Your task to perform on an android device: turn off javascript in the chrome app Image 0: 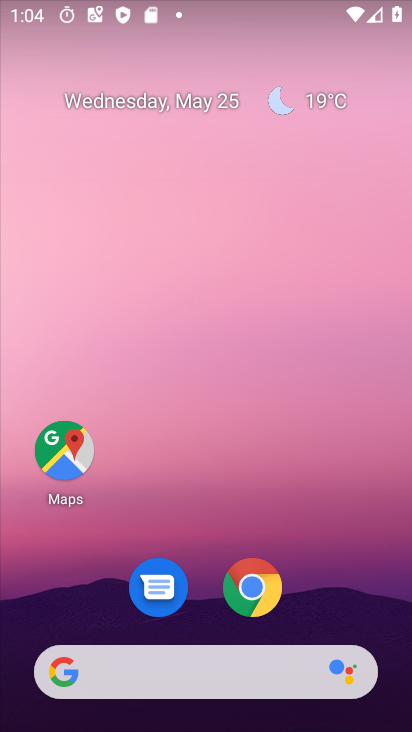
Step 0: click (255, 584)
Your task to perform on an android device: turn off javascript in the chrome app Image 1: 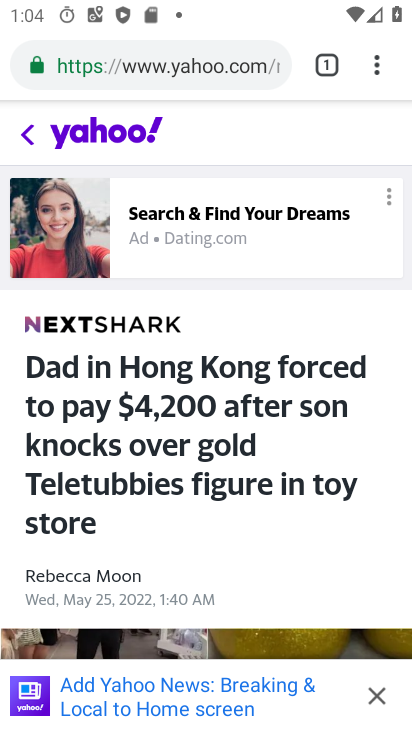
Step 1: click (378, 72)
Your task to perform on an android device: turn off javascript in the chrome app Image 2: 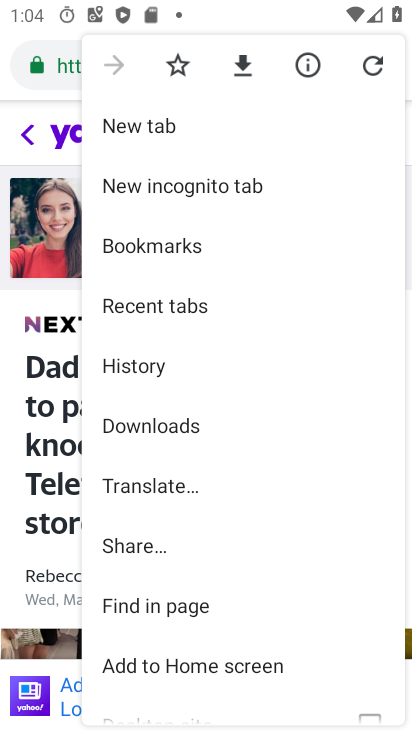
Step 2: drag from (160, 639) to (158, 276)
Your task to perform on an android device: turn off javascript in the chrome app Image 3: 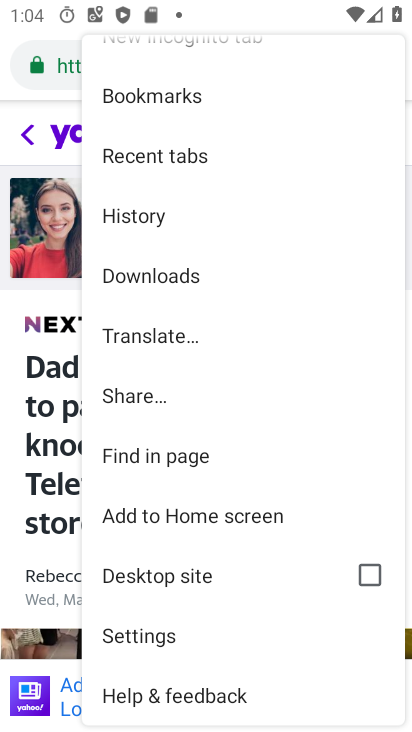
Step 3: click (156, 633)
Your task to perform on an android device: turn off javascript in the chrome app Image 4: 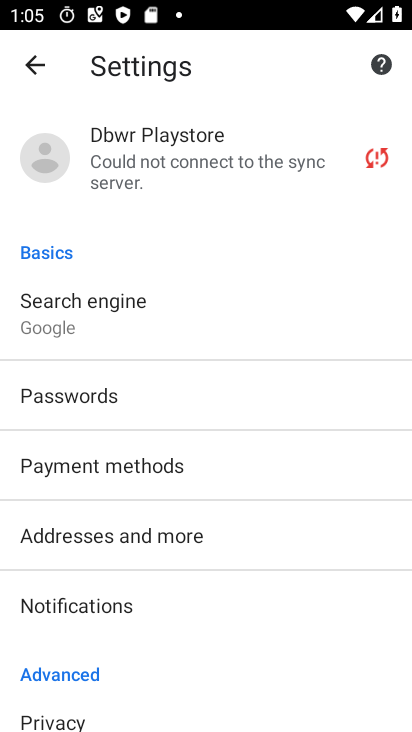
Step 4: drag from (139, 669) to (139, 357)
Your task to perform on an android device: turn off javascript in the chrome app Image 5: 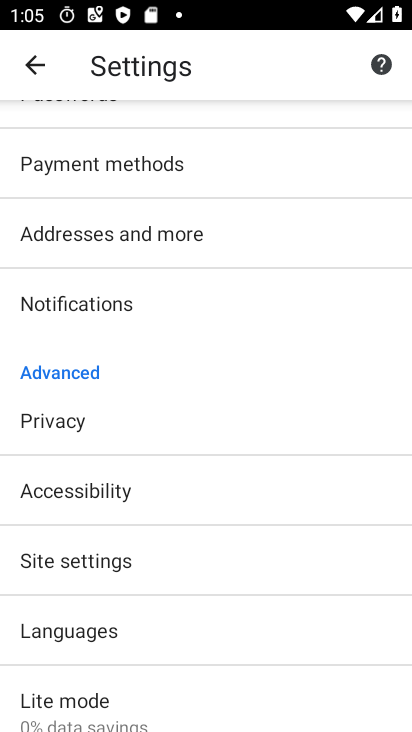
Step 5: click (85, 558)
Your task to perform on an android device: turn off javascript in the chrome app Image 6: 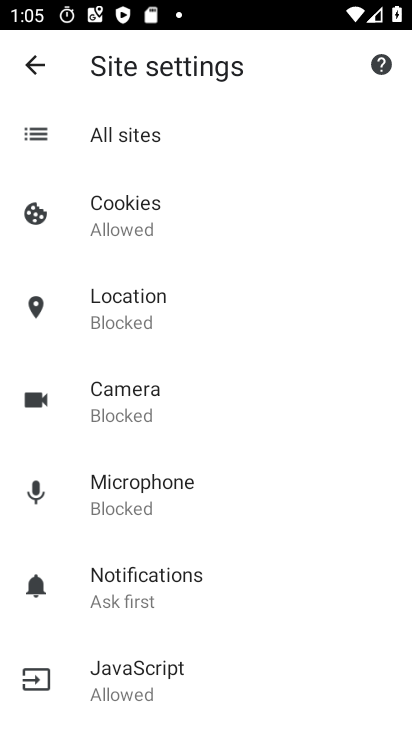
Step 6: click (166, 666)
Your task to perform on an android device: turn off javascript in the chrome app Image 7: 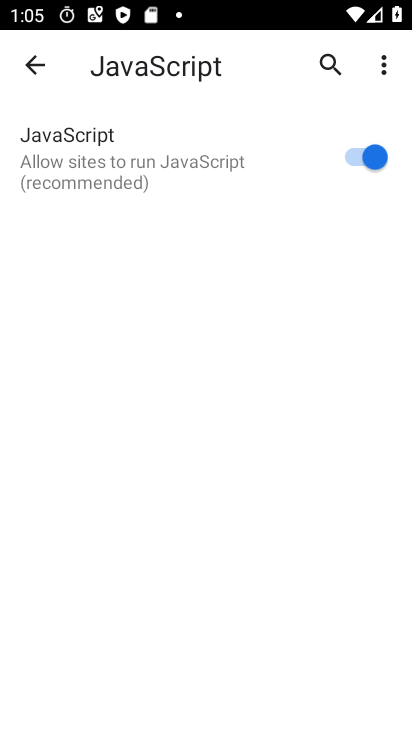
Step 7: click (356, 162)
Your task to perform on an android device: turn off javascript in the chrome app Image 8: 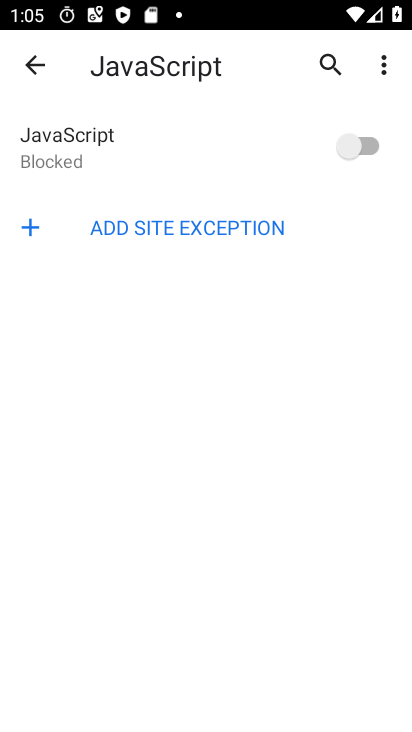
Step 8: task complete